Your task to perform on an android device: move an email to a new category in the gmail app Image 0: 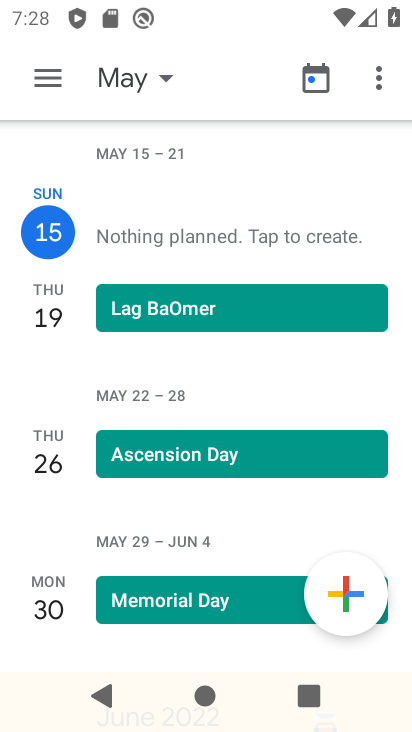
Step 0: press home button
Your task to perform on an android device: move an email to a new category in the gmail app Image 1: 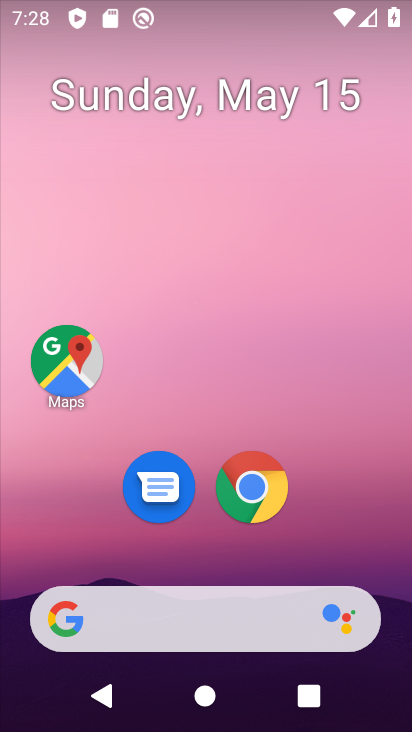
Step 1: drag from (329, 540) to (314, 101)
Your task to perform on an android device: move an email to a new category in the gmail app Image 2: 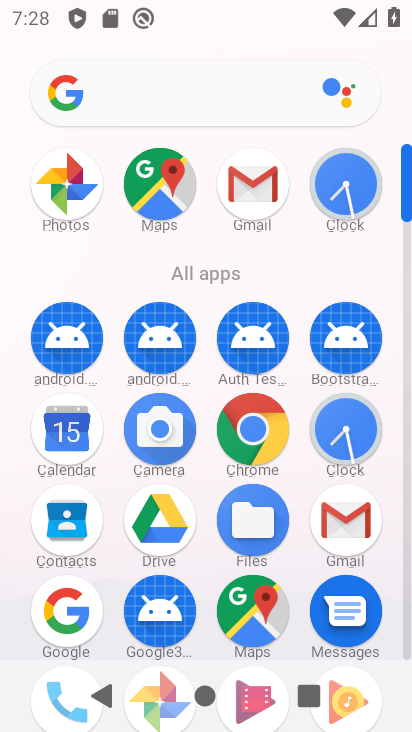
Step 2: click (353, 553)
Your task to perform on an android device: move an email to a new category in the gmail app Image 3: 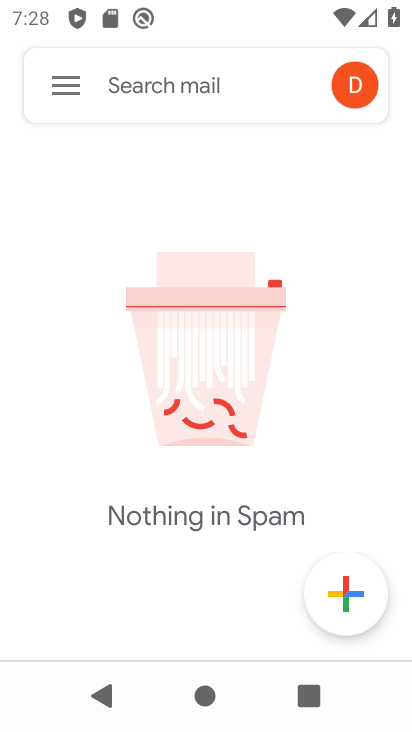
Step 3: click (52, 82)
Your task to perform on an android device: move an email to a new category in the gmail app Image 4: 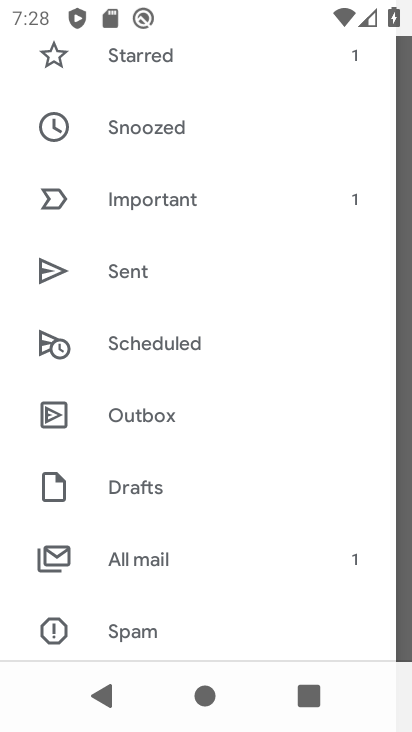
Step 4: click (195, 570)
Your task to perform on an android device: move an email to a new category in the gmail app Image 5: 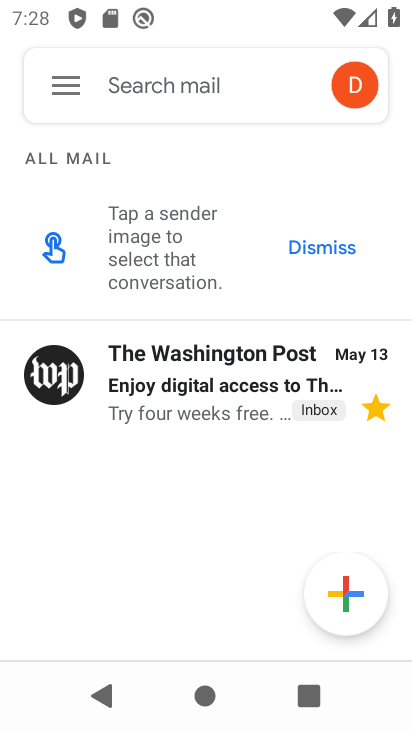
Step 5: click (251, 370)
Your task to perform on an android device: move an email to a new category in the gmail app Image 6: 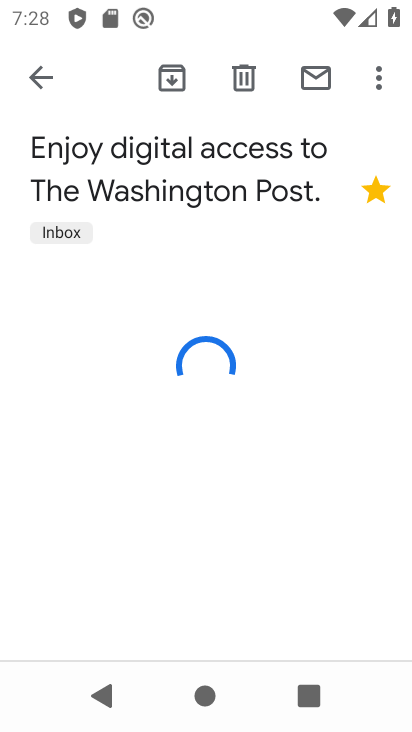
Step 6: click (380, 76)
Your task to perform on an android device: move an email to a new category in the gmail app Image 7: 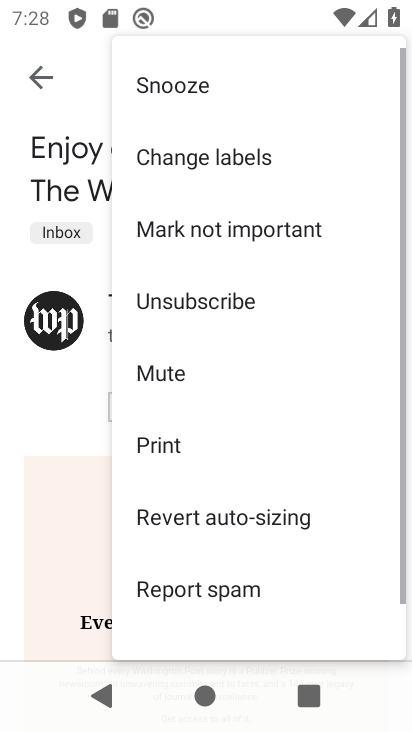
Step 7: task complete